Your task to perform on an android device: delete location history Image 0: 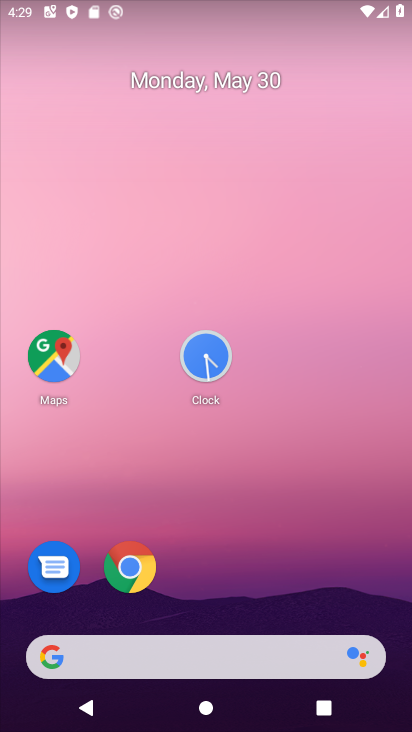
Step 0: drag from (296, 698) to (176, 98)
Your task to perform on an android device: delete location history Image 1: 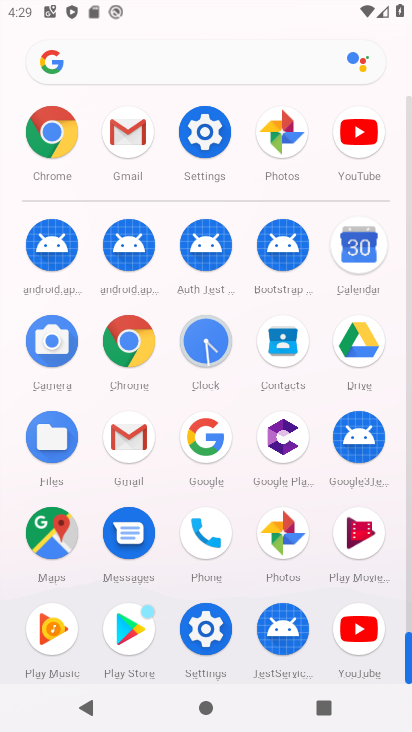
Step 1: click (42, 550)
Your task to perform on an android device: delete location history Image 2: 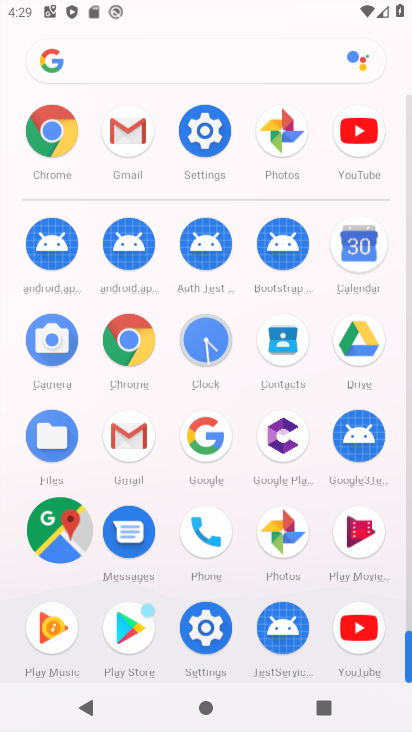
Step 2: click (45, 543)
Your task to perform on an android device: delete location history Image 3: 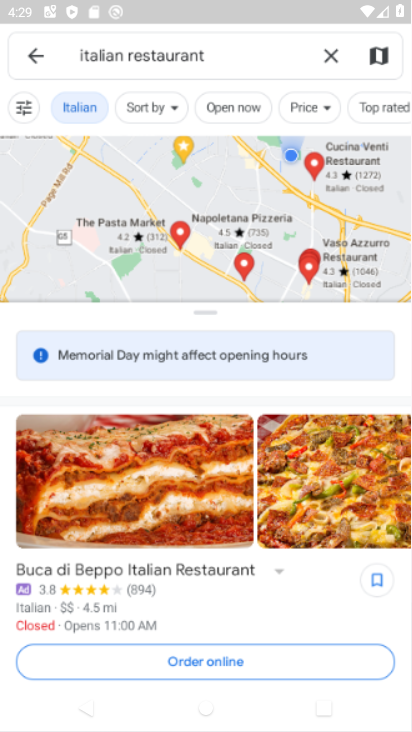
Step 3: click (45, 543)
Your task to perform on an android device: delete location history Image 4: 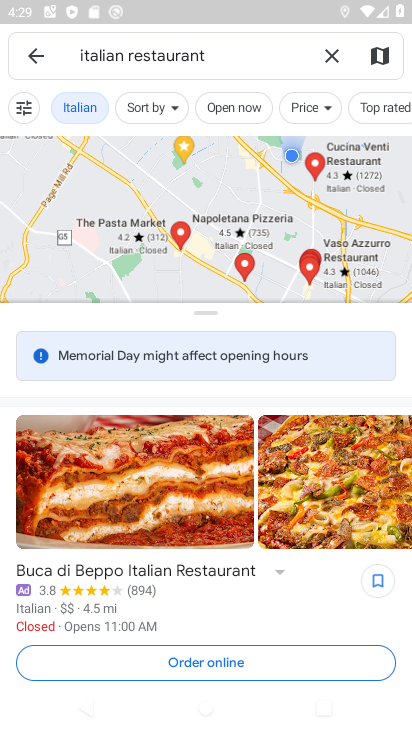
Step 4: click (34, 54)
Your task to perform on an android device: delete location history Image 5: 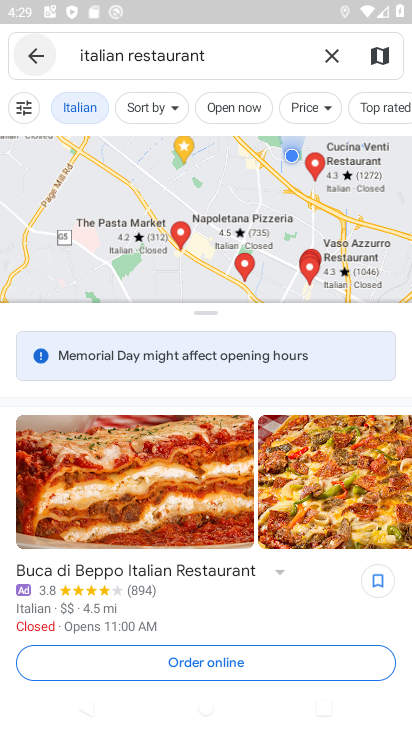
Step 5: click (34, 54)
Your task to perform on an android device: delete location history Image 6: 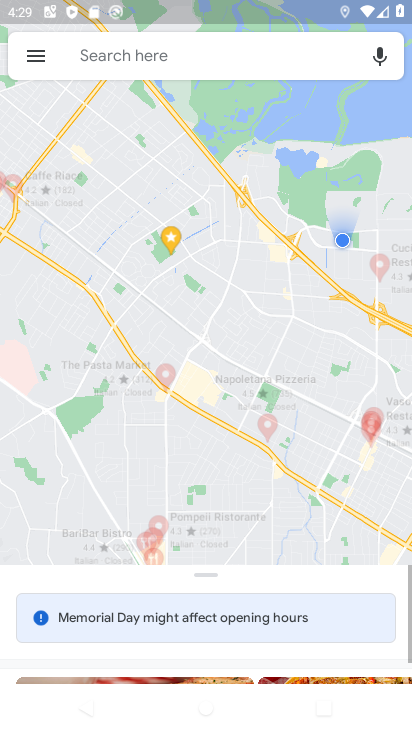
Step 6: click (36, 54)
Your task to perform on an android device: delete location history Image 7: 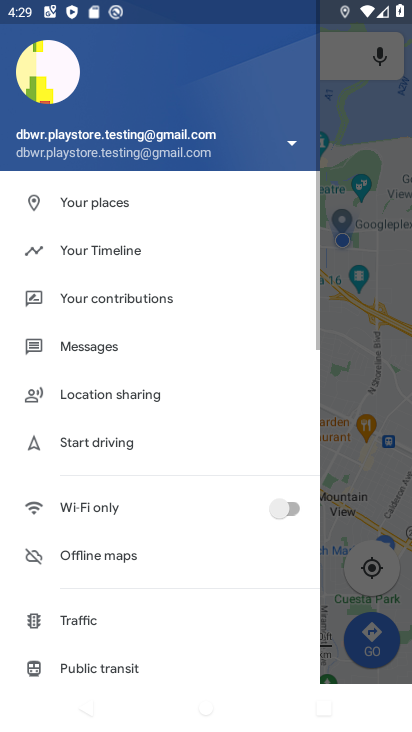
Step 7: click (86, 54)
Your task to perform on an android device: delete location history Image 8: 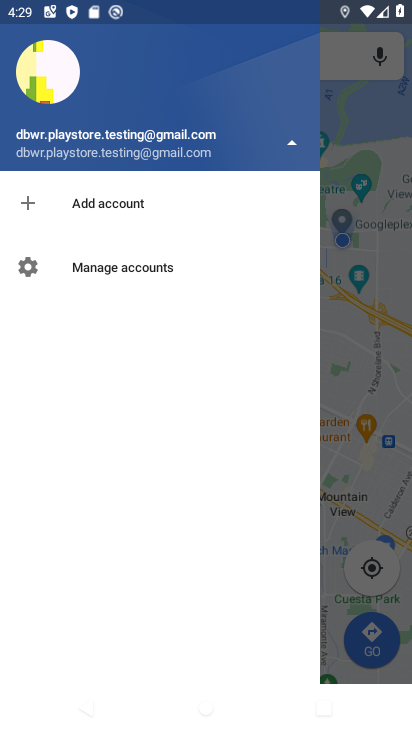
Step 8: click (289, 145)
Your task to perform on an android device: delete location history Image 9: 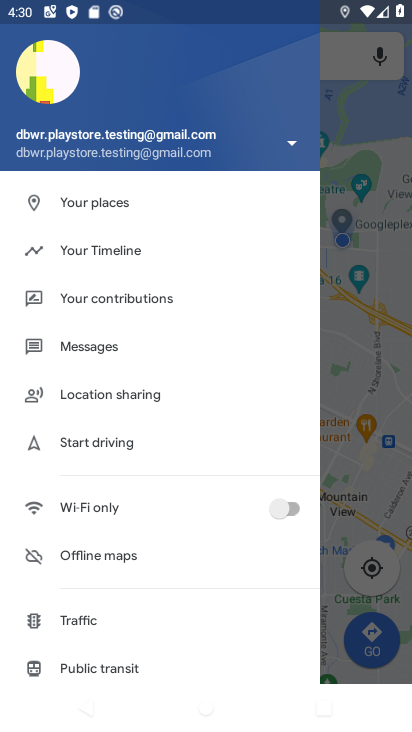
Step 9: click (363, 251)
Your task to perform on an android device: delete location history Image 10: 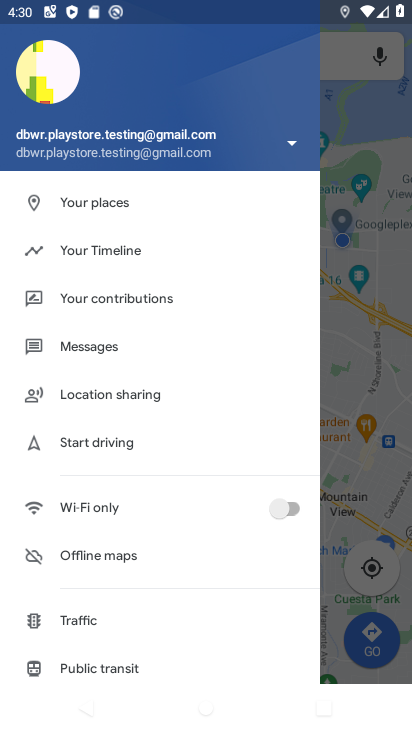
Step 10: click (362, 251)
Your task to perform on an android device: delete location history Image 11: 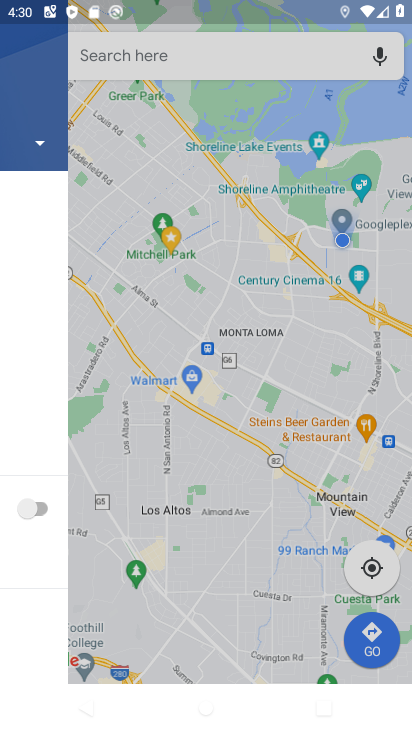
Step 11: click (362, 251)
Your task to perform on an android device: delete location history Image 12: 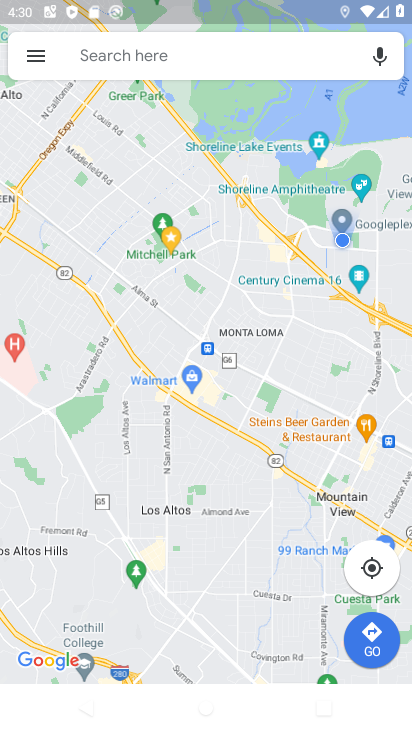
Step 12: click (46, 49)
Your task to perform on an android device: delete location history Image 13: 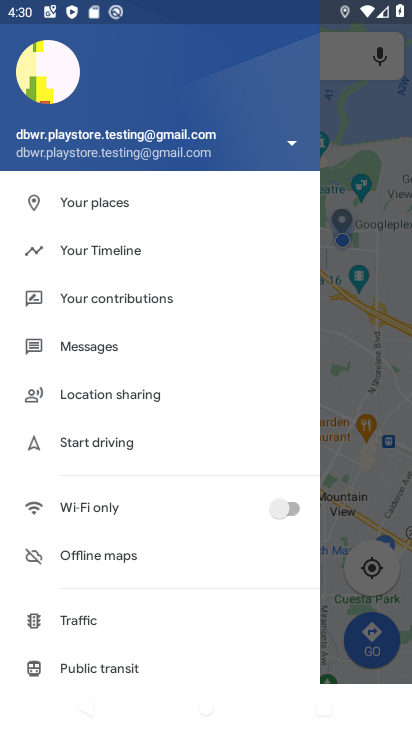
Step 13: click (120, 256)
Your task to perform on an android device: delete location history Image 14: 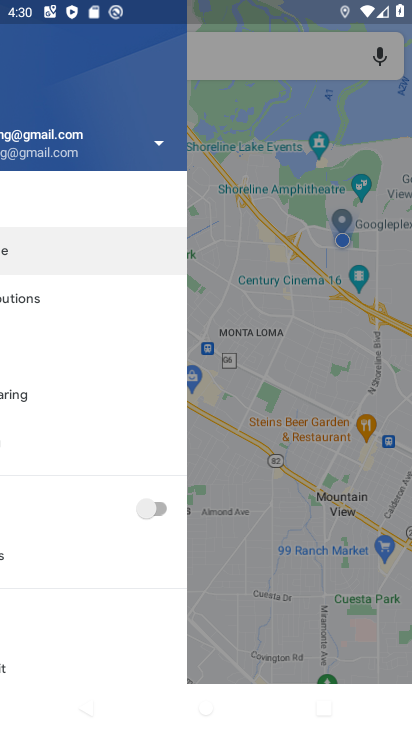
Step 14: click (120, 250)
Your task to perform on an android device: delete location history Image 15: 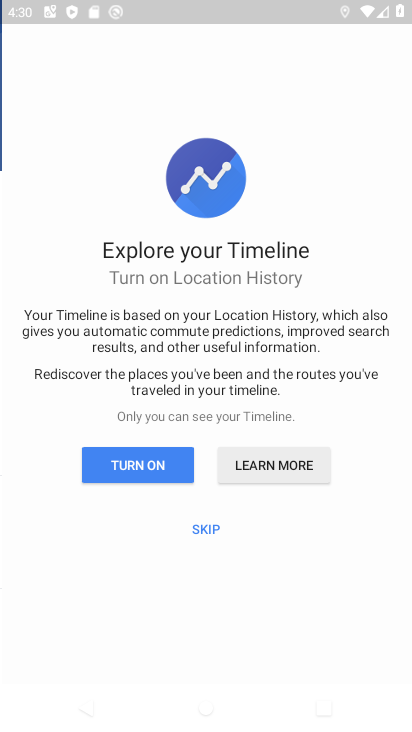
Step 15: click (120, 250)
Your task to perform on an android device: delete location history Image 16: 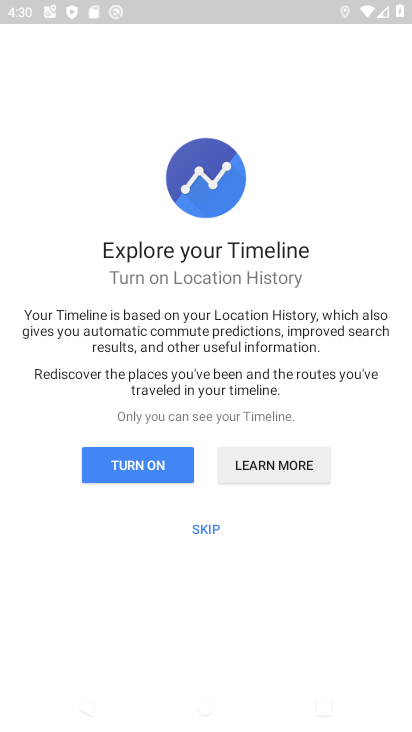
Step 16: click (160, 464)
Your task to perform on an android device: delete location history Image 17: 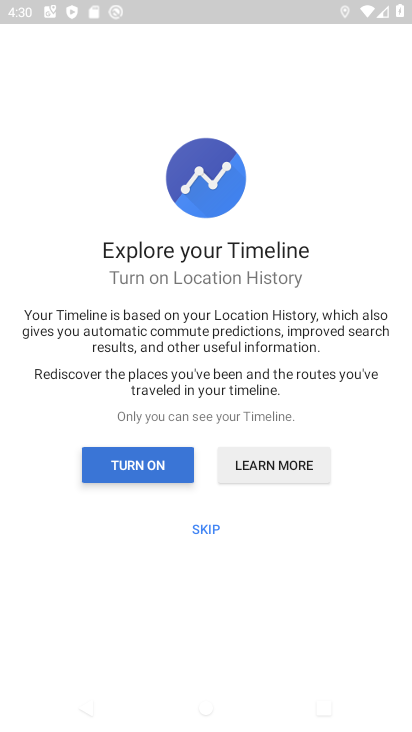
Step 17: click (152, 464)
Your task to perform on an android device: delete location history Image 18: 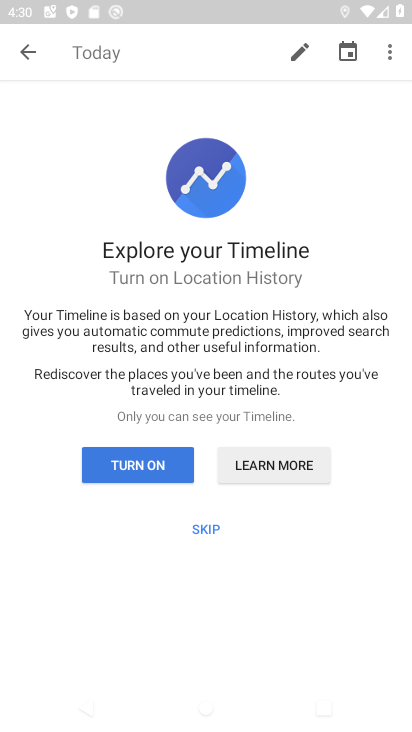
Step 18: click (152, 464)
Your task to perform on an android device: delete location history Image 19: 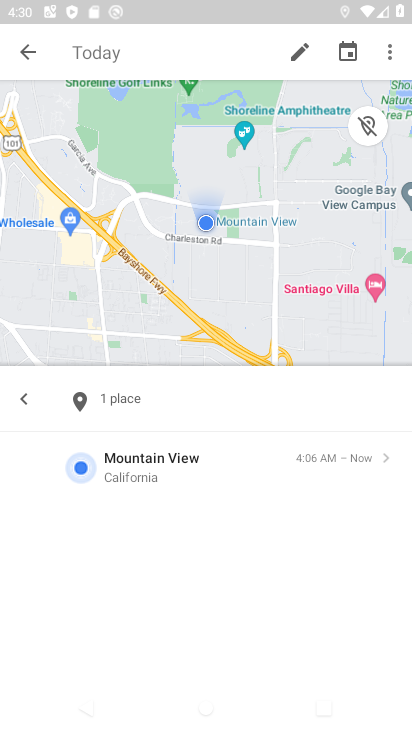
Step 19: drag from (391, 66) to (355, 660)
Your task to perform on an android device: delete location history Image 20: 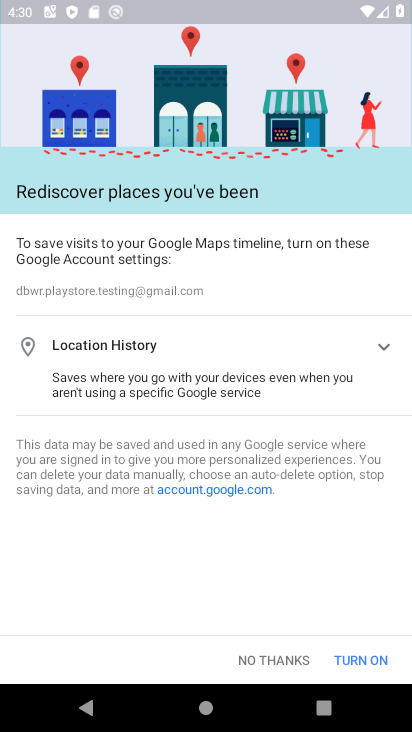
Step 20: click (357, 657)
Your task to perform on an android device: delete location history Image 21: 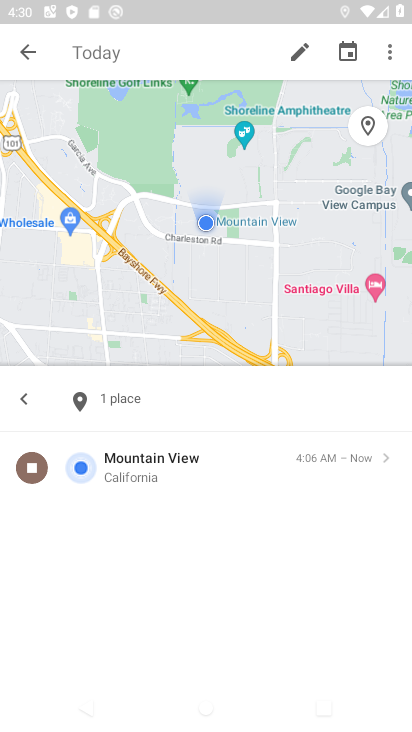
Step 21: task complete